Your task to perform on an android device: show emergency info Image 0: 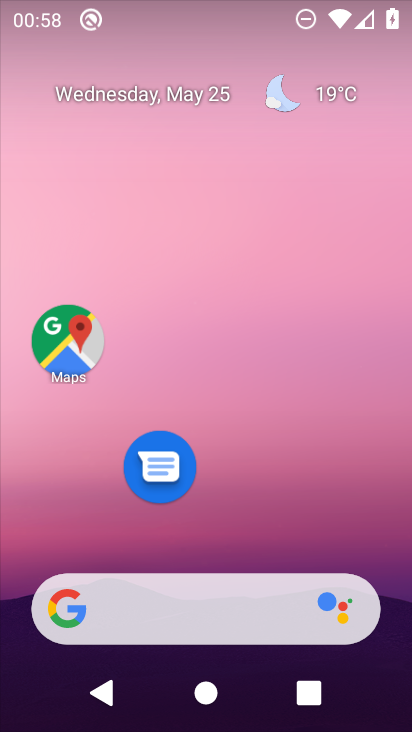
Step 0: drag from (197, 547) to (253, 119)
Your task to perform on an android device: show emergency info Image 1: 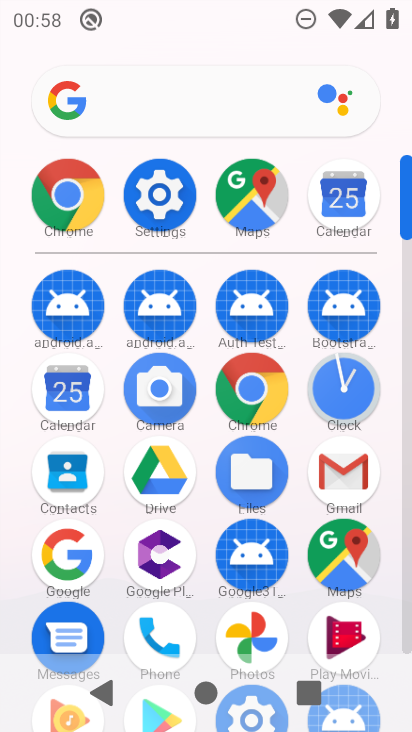
Step 1: click (162, 190)
Your task to perform on an android device: show emergency info Image 2: 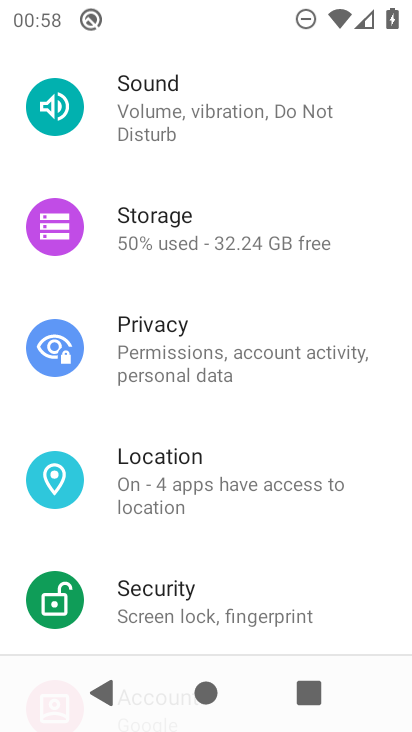
Step 2: drag from (242, 564) to (320, 191)
Your task to perform on an android device: show emergency info Image 3: 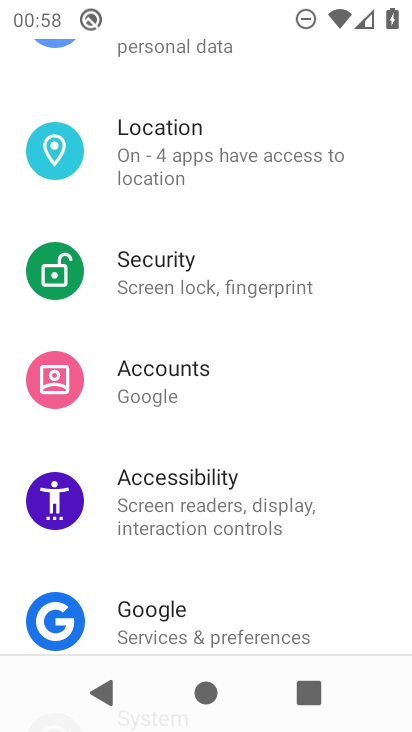
Step 3: drag from (205, 617) to (247, 315)
Your task to perform on an android device: show emergency info Image 4: 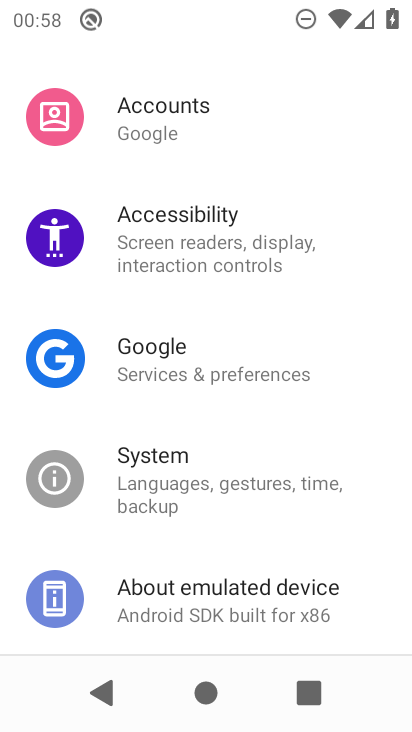
Step 4: click (218, 601)
Your task to perform on an android device: show emergency info Image 5: 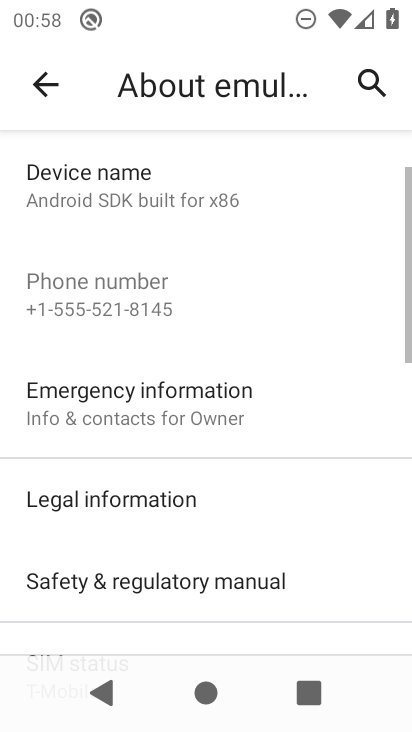
Step 5: click (223, 395)
Your task to perform on an android device: show emergency info Image 6: 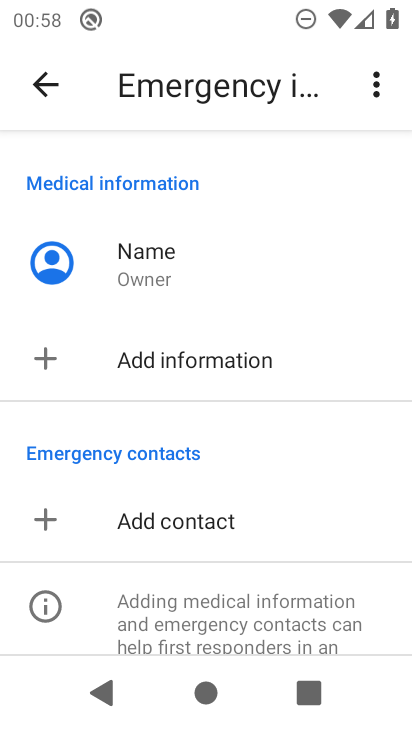
Step 6: task complete